Your task to perform on an android device: Open Chrome and go to settings Image 0: 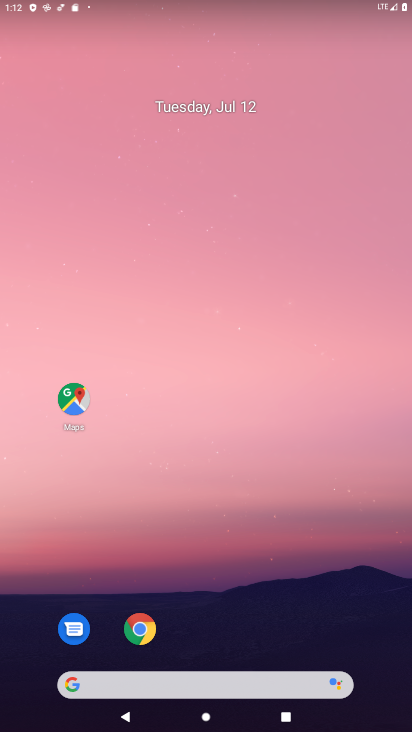
Step 0: drag from (156, 666) to (381, 43)
Your task to perform on an android device: Open Chrome and go to settings Image 1: 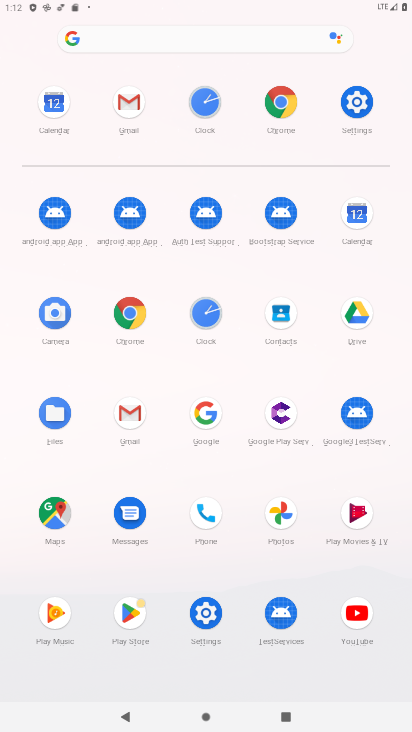
Step 1: click (133, 310)
Your task to perform on an android device: Open Chrome and go to settings Image 2: 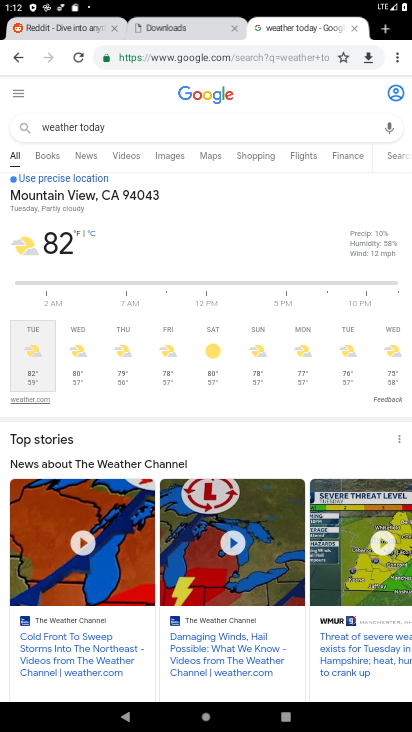
Step 2: task complete